Your task to perform on an android device: Open Google Maps and go to "Timeline" Image 0: 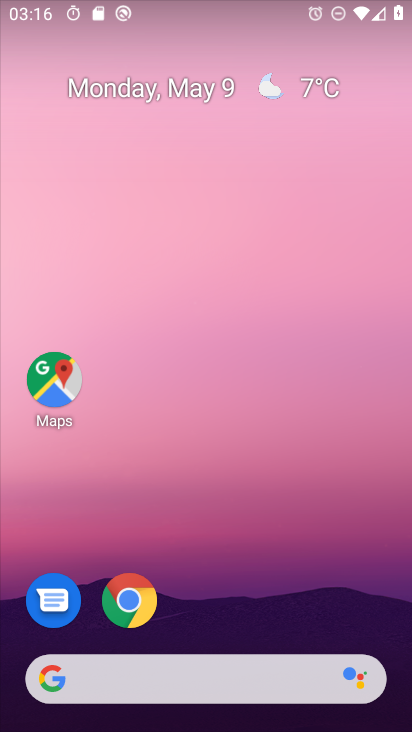
Step 0: click (46, 362)
Your task to perform on an android device: Open Google Maps and go to "Timeline" Image 1: 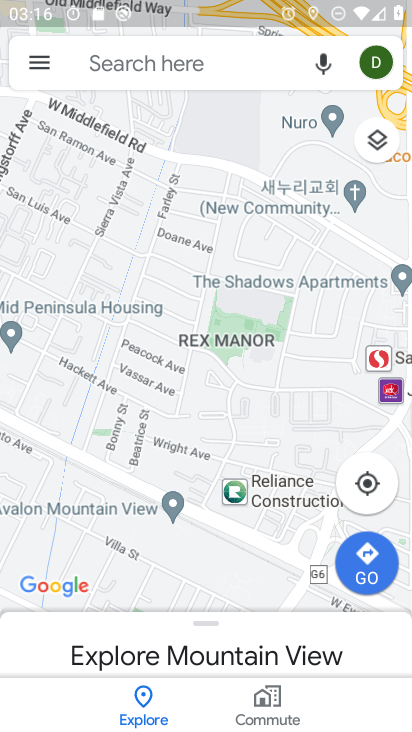
Step 1: click (51, 61)
Your task to perform on an android device: Open Google Maps and go to "Timeline" Image 2: 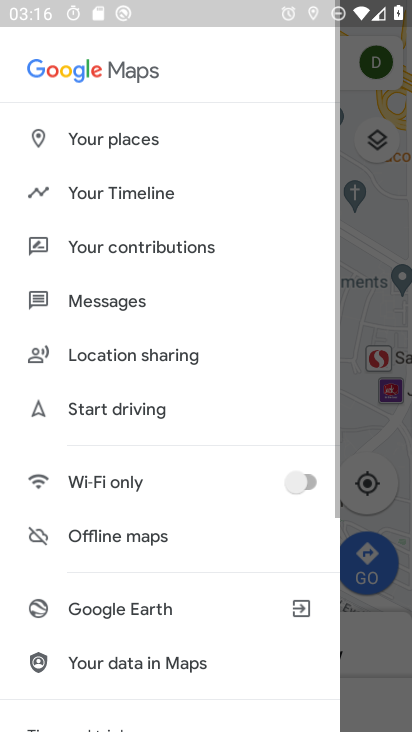
Step 2: click (108, 198)
Your task to perform on an android device: Open Google Maps and go to "Timeline" Image 3: 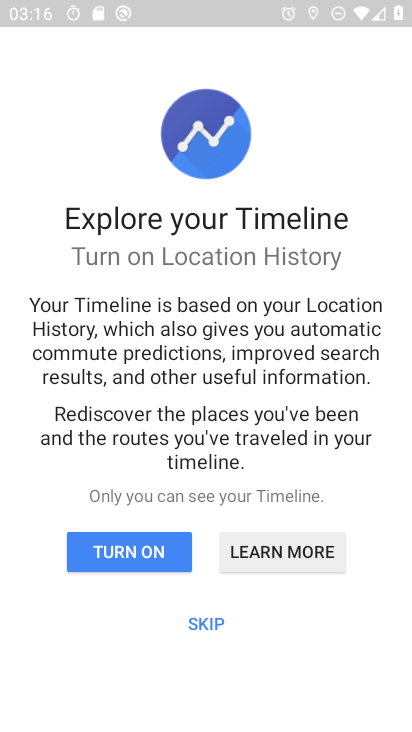
Step 3: click (149, 543)
Your task to perform on an android device: Open Google Maps and go to "Timeline" Image 4: 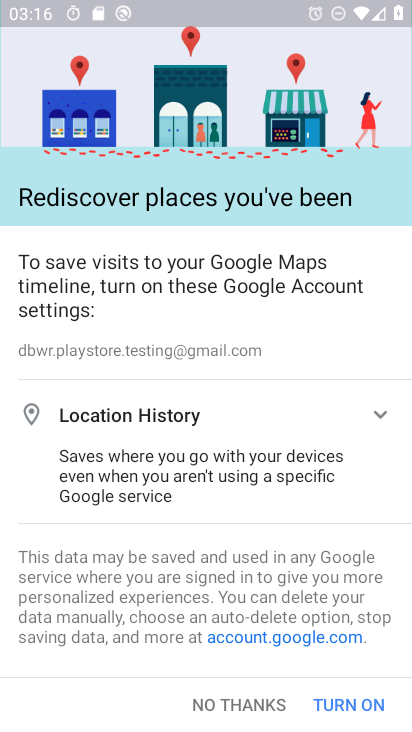
Step 4: click (330, 719)
Your task to perform on an android device: Open Google Maps and go to "Timeline" Image 5: 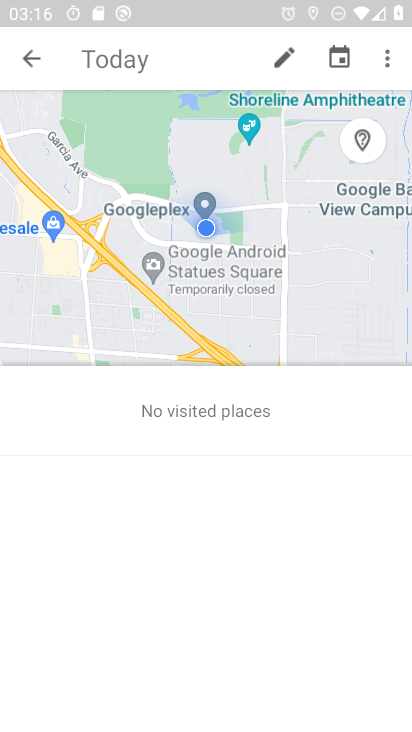
Step 5: click (336, 710)
Your task to perform on an android device: Open Google Maps and go to "Timeline" Image 6: 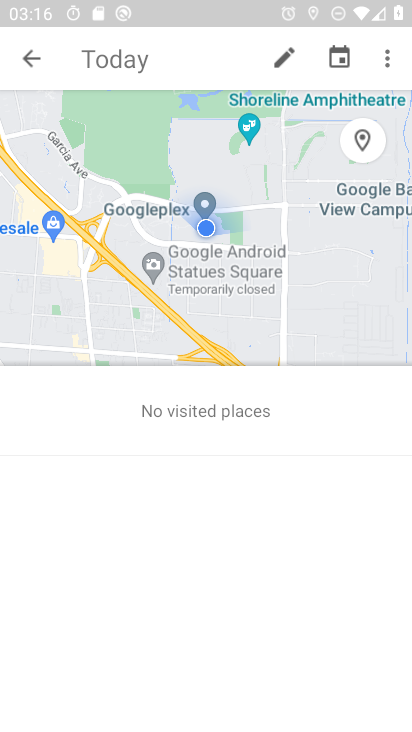
Step 6: task complete